Your task to perform on an android device: open the mobile data screen to see how much data has been used Image 0: 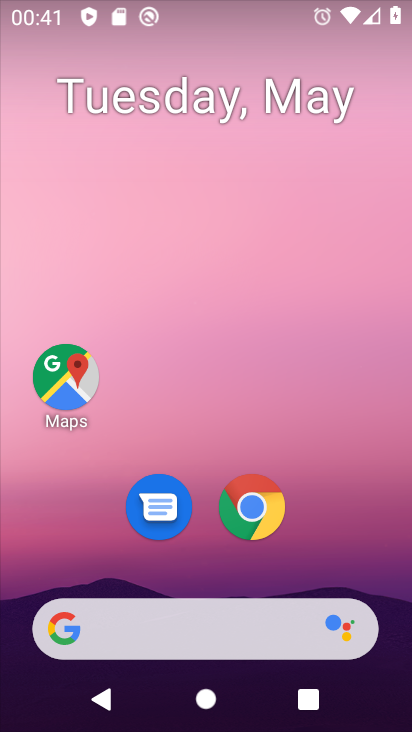
Step 0: drag from (187, 596) to (253, 212)
Your task to perform on an android device: open the mobile data screen to see how much data has been used Image 1: 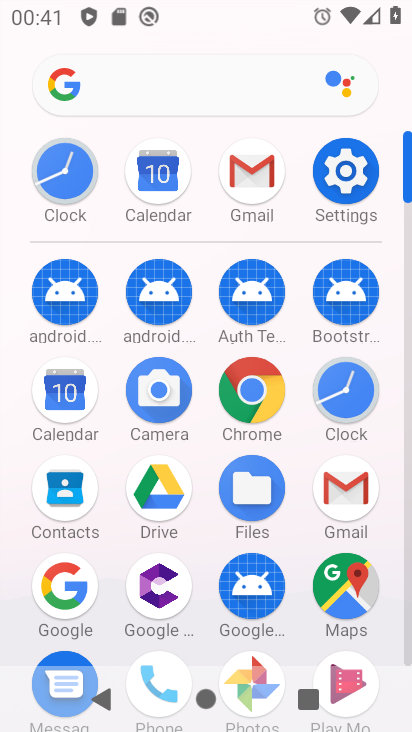
Step 1: click (355, 168)
Your task to perform on an android device: open the mobile data screen to see how much data has been used Image 2: 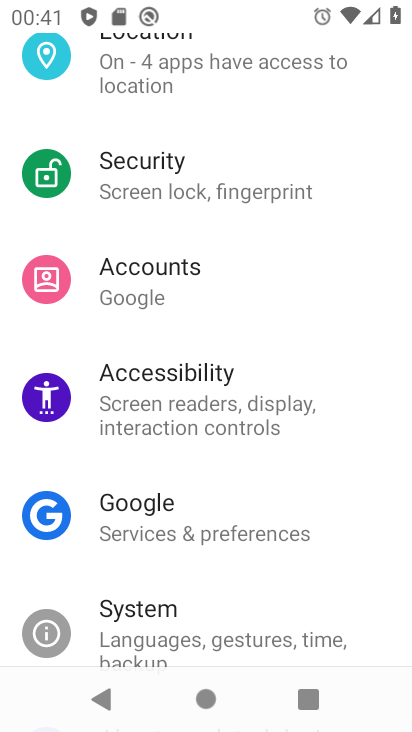
Step 2: drag from (204, 152) to (180, 510)
Your task to perform on an android device: open the mobile data screen to see how much data has been used Image 3: 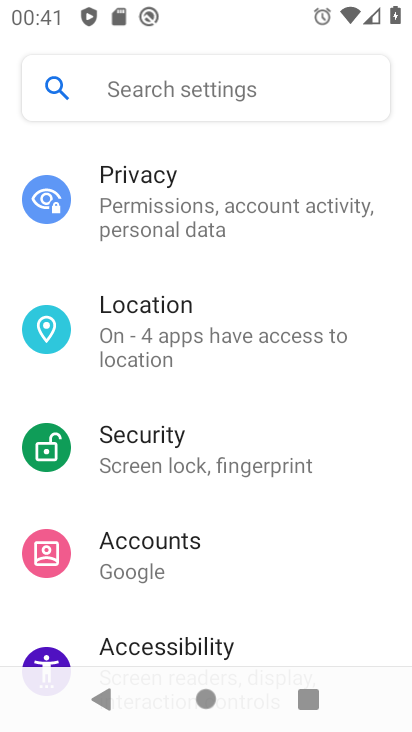
Step 3: drag from (183, 152) to (179, 466)
Your task to perform on an android device: open the mobile data screen to see how much data has been used Image 4: 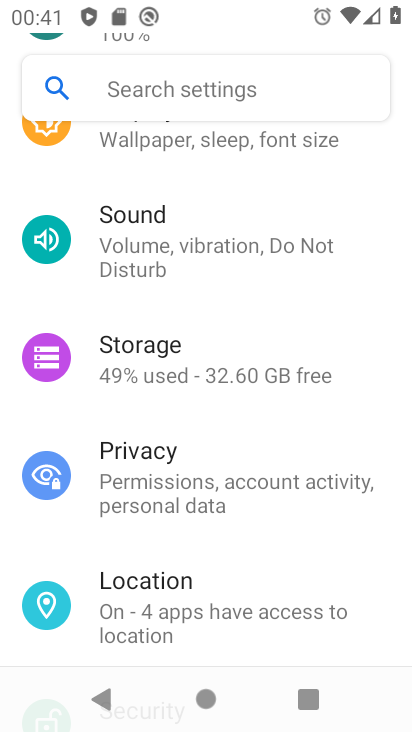
Step 4: drag from (207, 266) to (199, 506)
Your task to perform on an android device: open the mobile data screen to see how much data has been used Image 5: 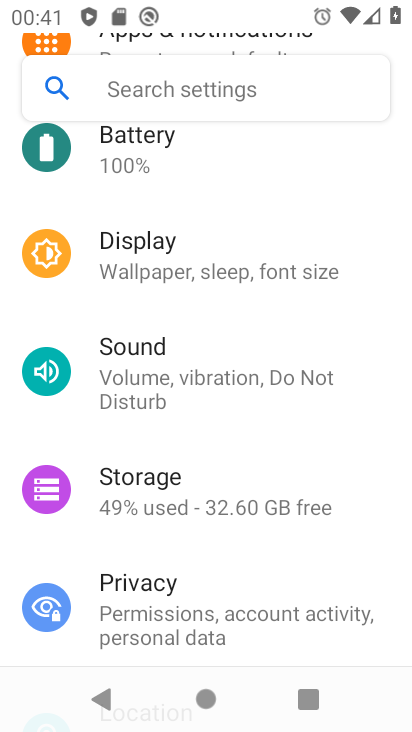
Step 5: drag from (208, 180) to (166, 578)
Your task to perform on an android device: open the mobile data screen to see how much data has been used Image 6: 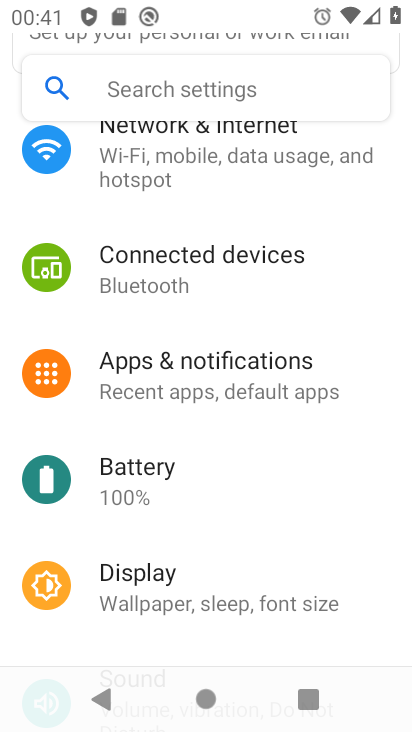
Step 6: click (132, 168)
Your task to perform on an android device: open the mobile data screen to see how much data has been used Image 7: 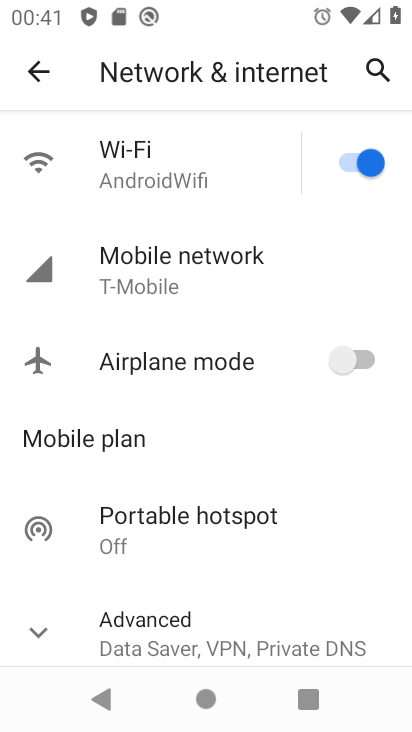
Step 7: click (179, 285)
Your task to perform on an android device: open the mobile data screen to see how much data has been used Image 8: 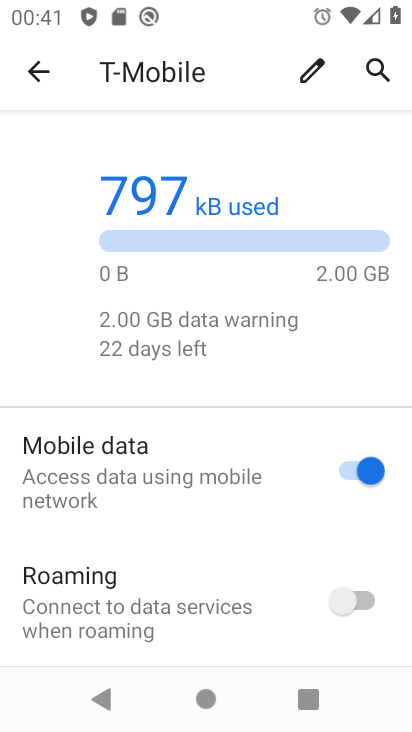
Step 8: task complete